Your task to perform on an android device: Go to Yahoo.com Image 0: 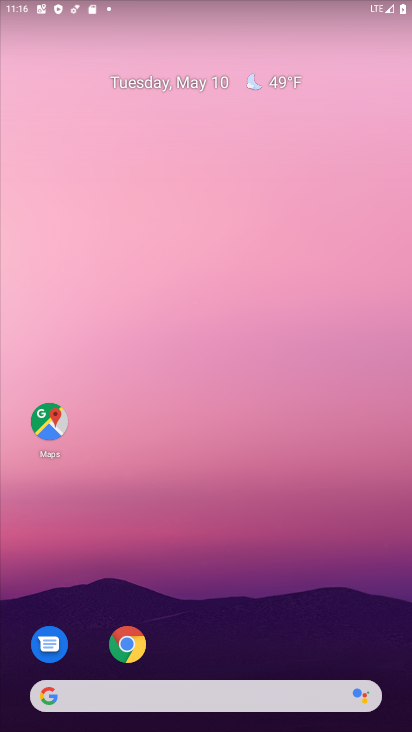
Step 0: click (143, 638)
Your task to perform on an android device: Go to Yahoo.com Image 1: 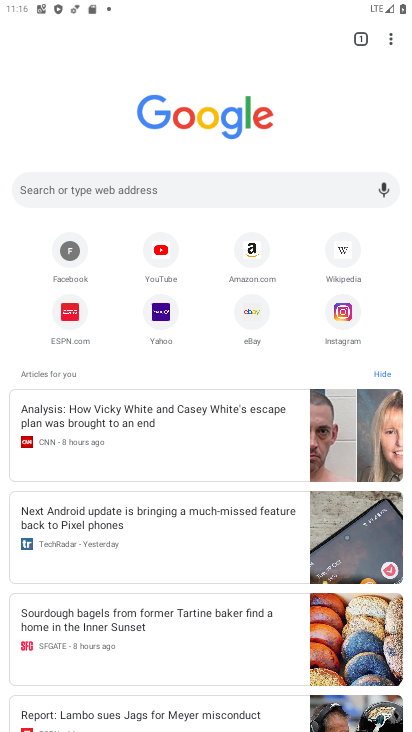
Step 1: click (127, 195)
Your task to perform on an android device: Go to Yahoo.com Image 2: 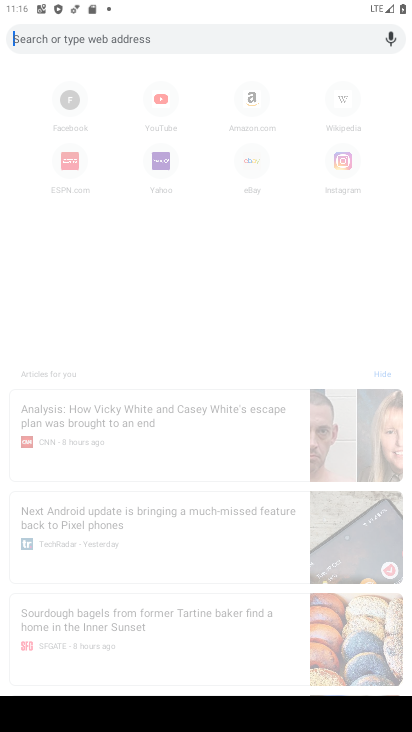
Step 2: type "Yahoo.com"
Your task to perform on an android device: Go to Yahoo.com Image 3: 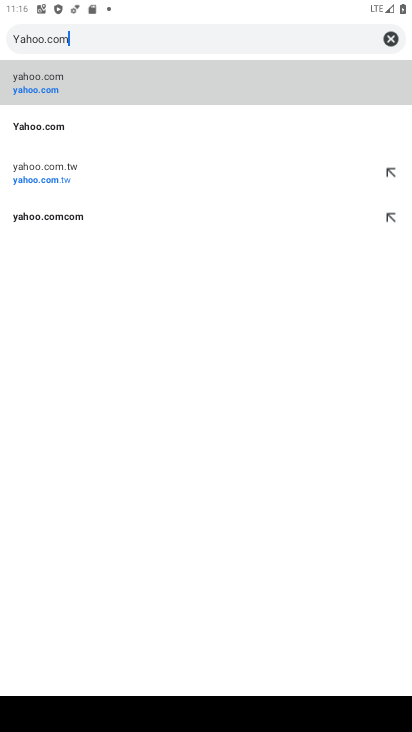
Step 3: click (210, 101)
Your task to perform on an android device: Go to Yahoo.com Image 4: 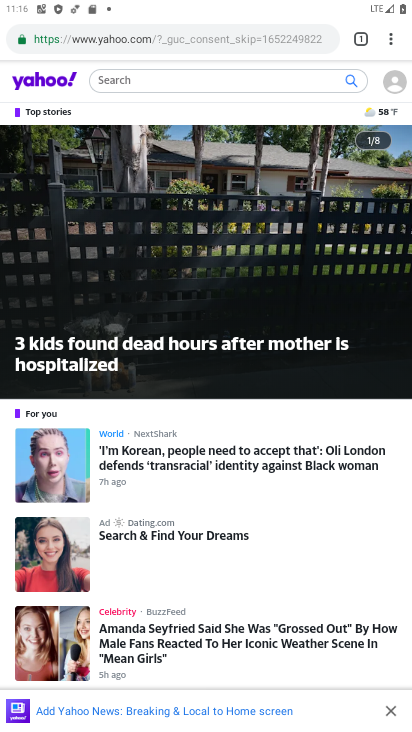
Step 4: task complete